Your task to perform on an android device: toggle translation in the chrome app Image 0: 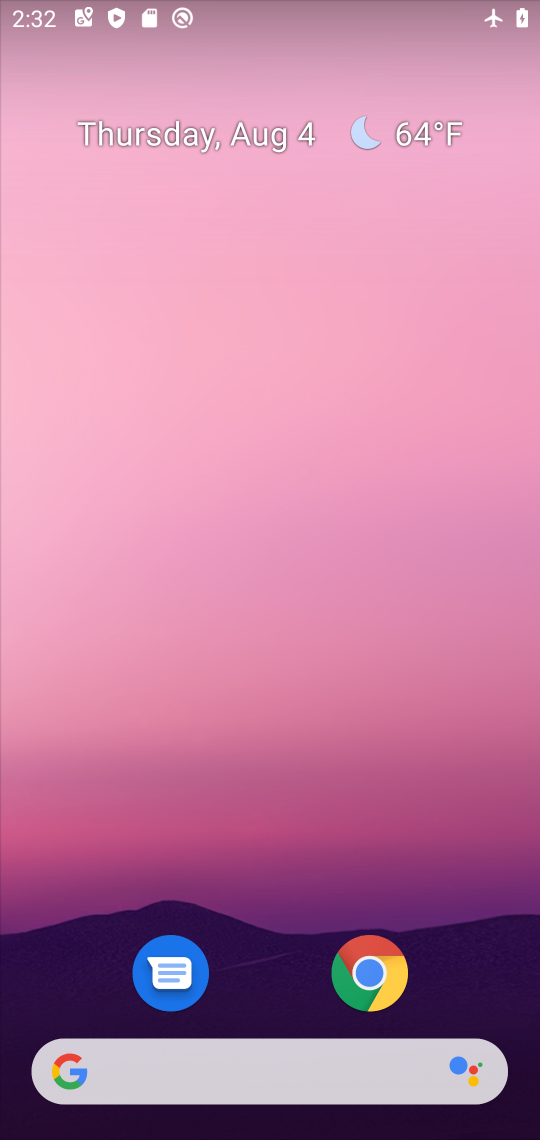
Step 0: drag from (295, 1046) to (406, 6)
Your task to perform on an android device: toggle translation in the chrome app Image 1: 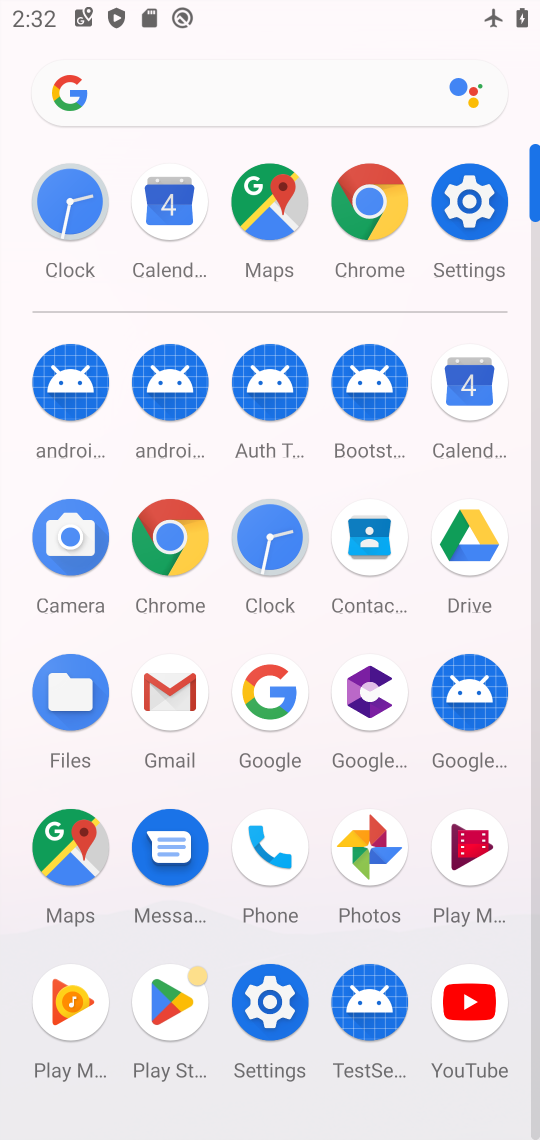
Step 1: click (350, 220)
Your task to perform on an android device: toggle translation in the chrome app Image 2: 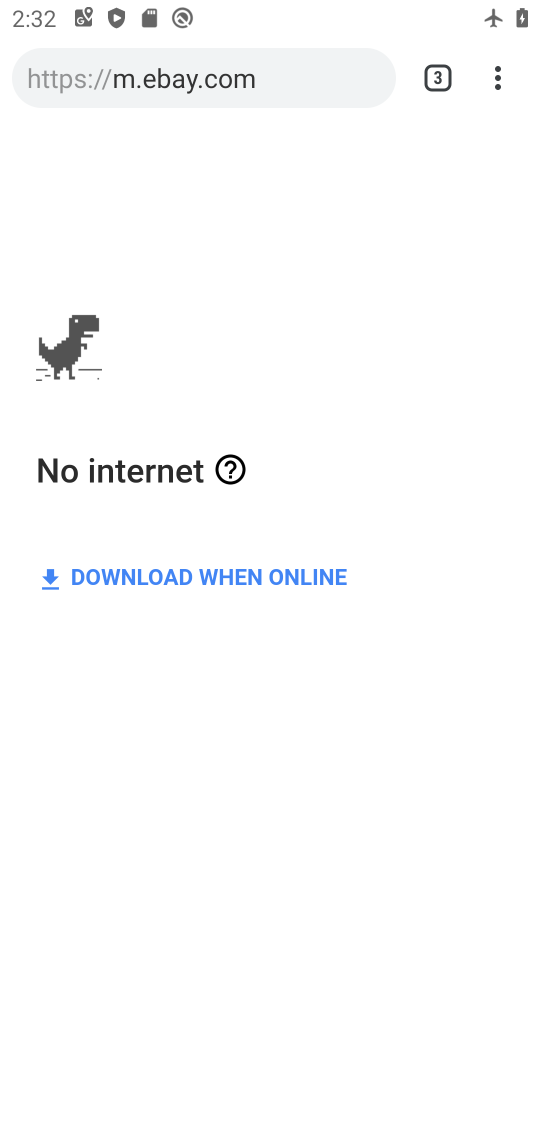
Step 2: click (515, 83)
Your task to perform on an android device: toggle translation in the chrome app Image 3: 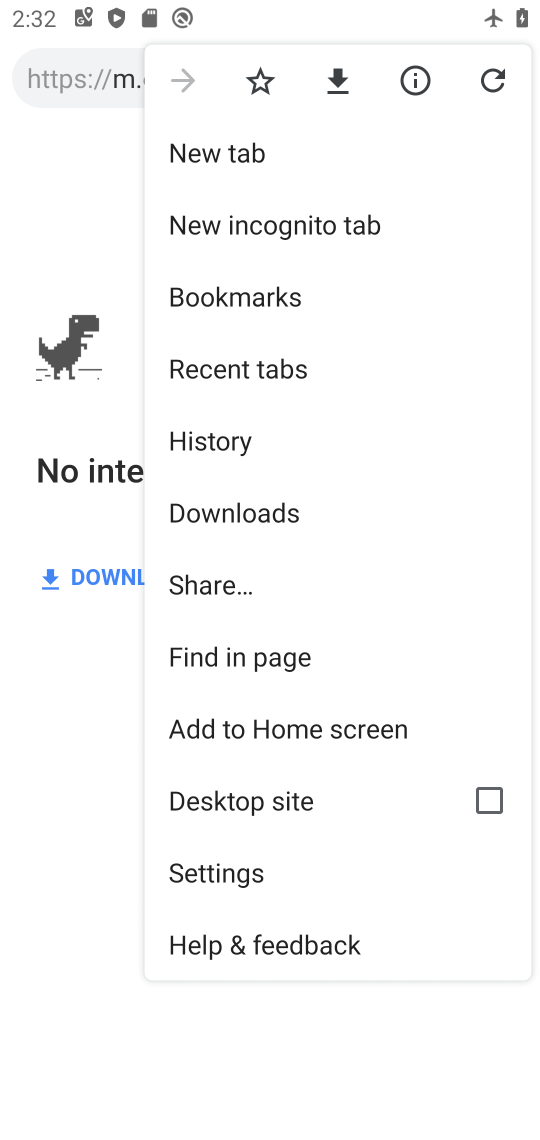
Step 3: click (253, 871)
Your task to perform on an android device: toggle translation in the chrome app Image 4: 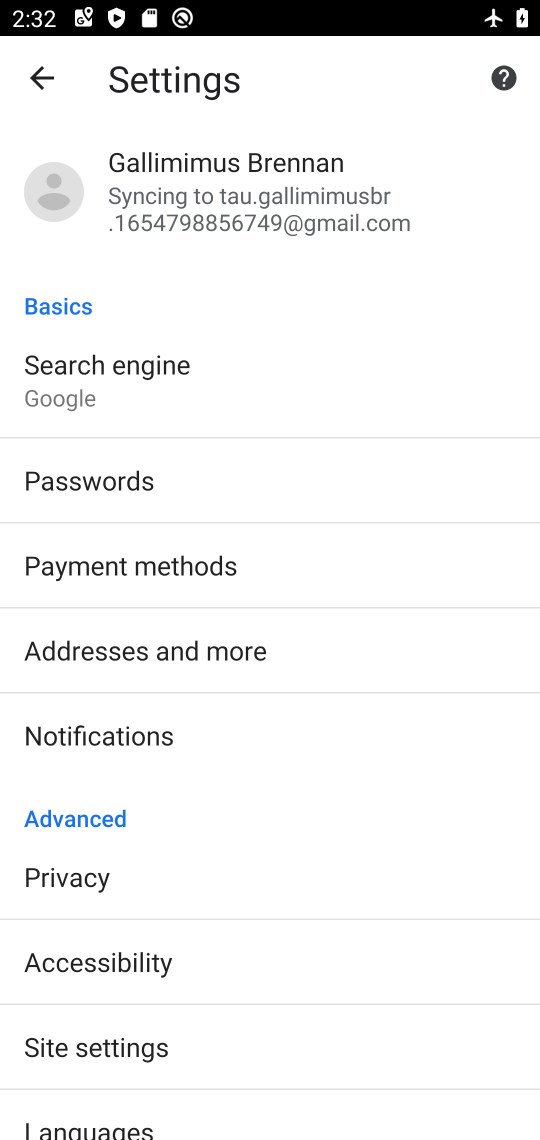
Step 4: drag from (143, 1011) to (88, 154)
Your task to perform on an android device: toggle translation in the chrome app Image 5: 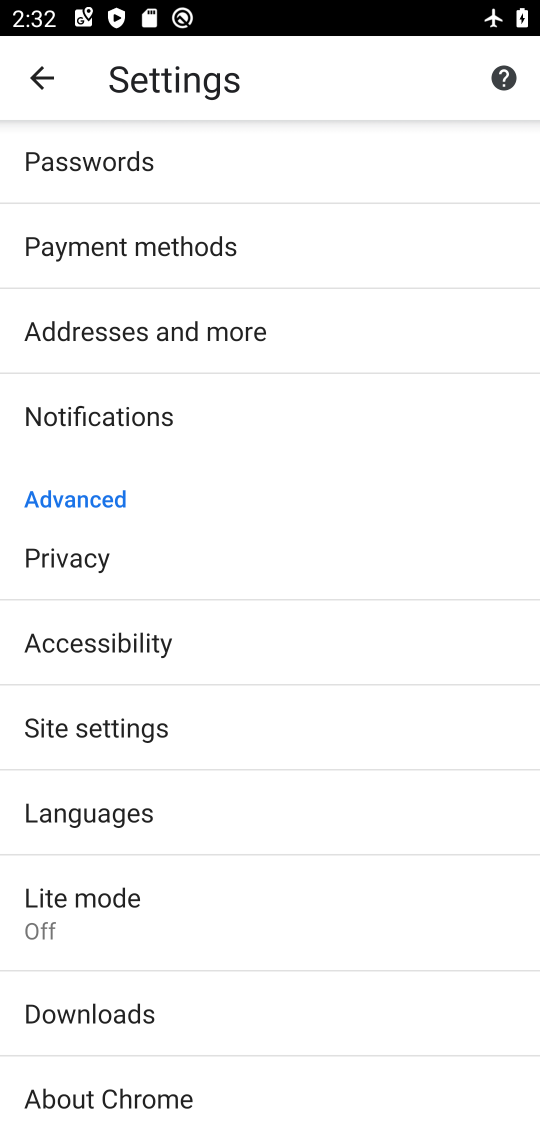
Step 5: click (89, 816)
Your task to perform on an android device: toggle translation in the chrome app Image 6: 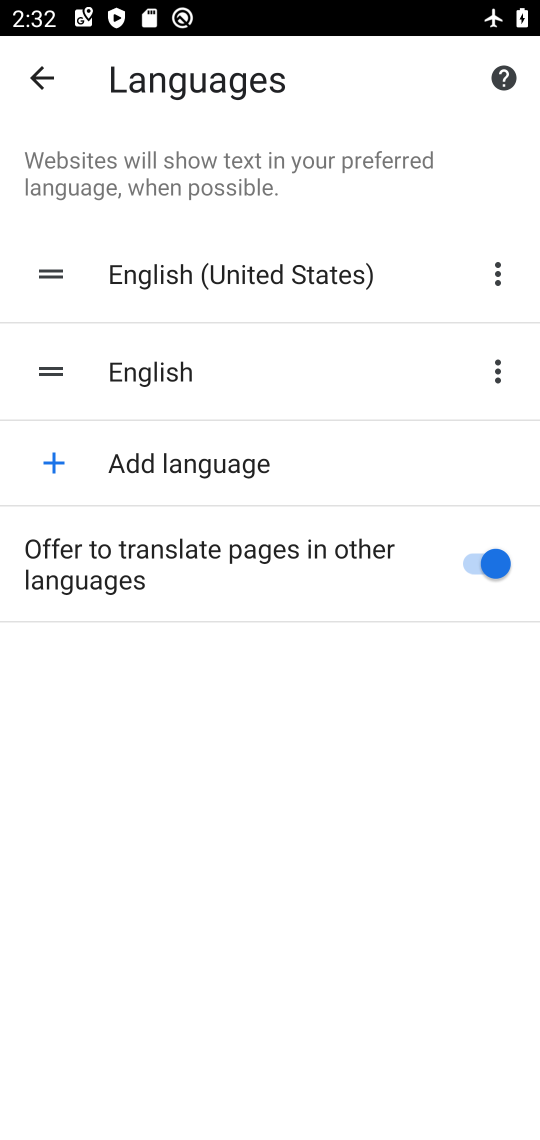
Step 6: click (473, 566)
Your task to perform on an android device: toggle translation in the chrome app Image 7: 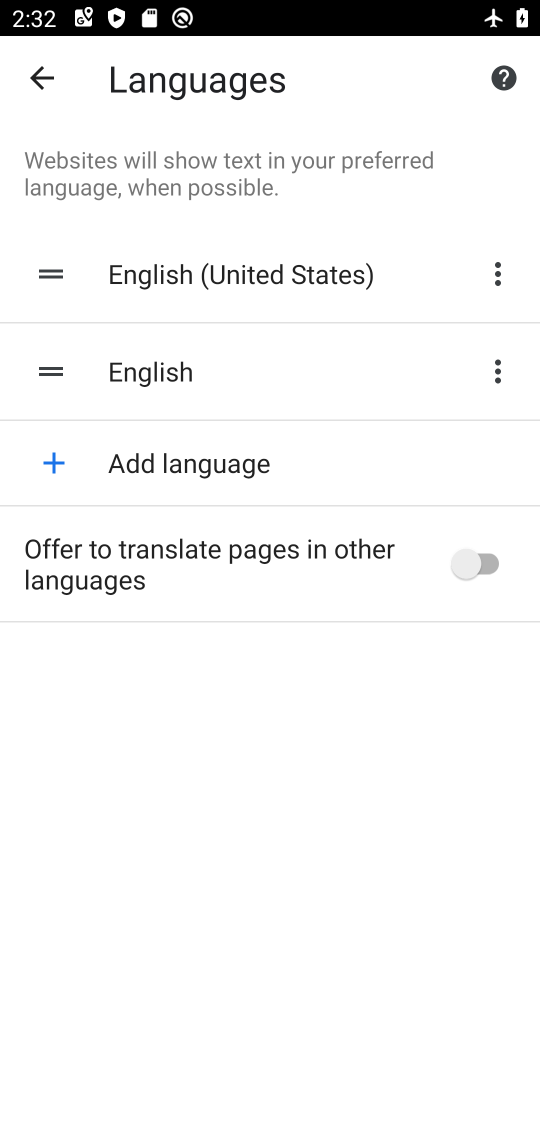
Step 7: task complete